Your task to perform on an android device: Open the Play Movies app and select the watchlist tab. Image 0: 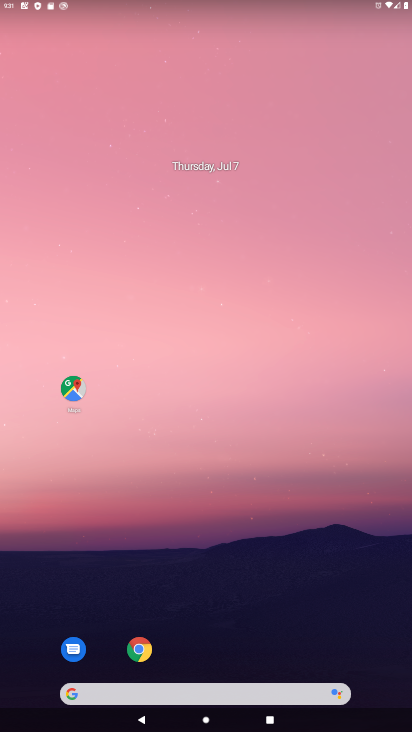
Step 0: drag from (297, 706) to (314, 218)
Your task to perform on an android device: Open the Play Movies app and select the watchlist tab. Image 1: 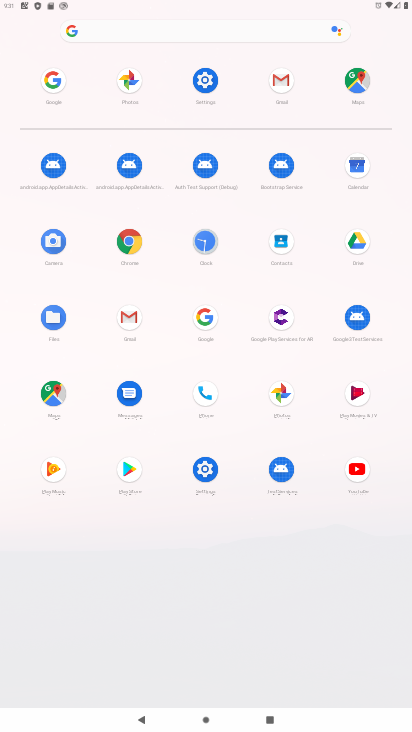
Step 1: click (360, 392)
Your task to perform on an android device: Open the Play Movies app and select the watchlist tab. Image 2: 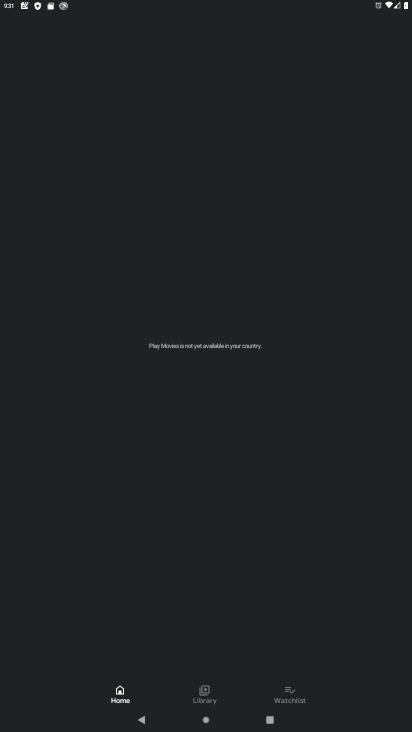
Step 2: click (296, 699)
Your task to perform on an android device: Open the Play Movies app and select the watchlist tab. Image 3: 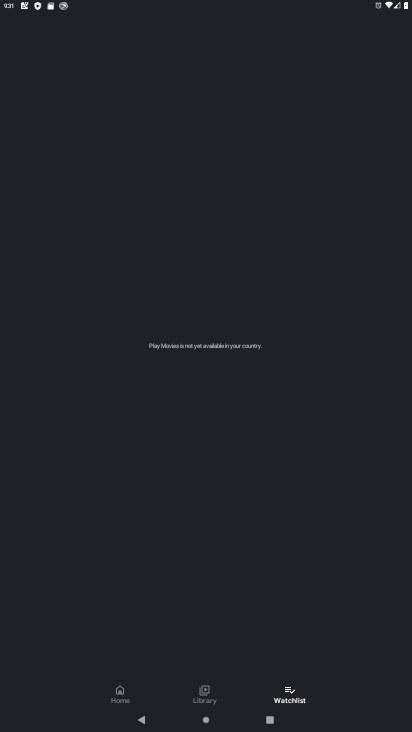
Step 3: task complete